Your task to perform on an android device: add a contact in the contacts app Image 0: 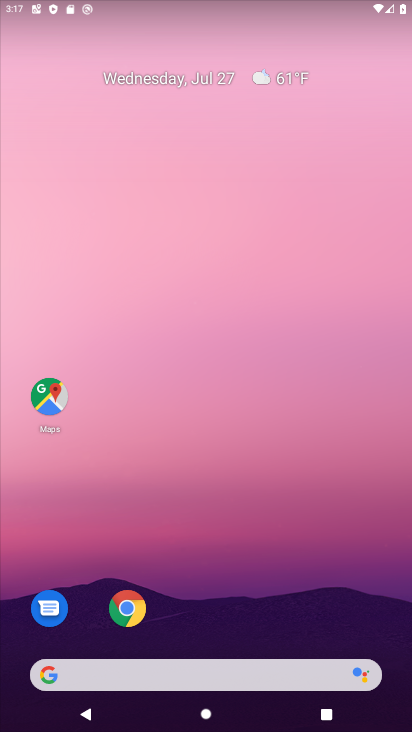
Step 0: drag from (261, 583) to (209, 52)
Your task to perform on an android device: add a contact in the contacts app Image 1: 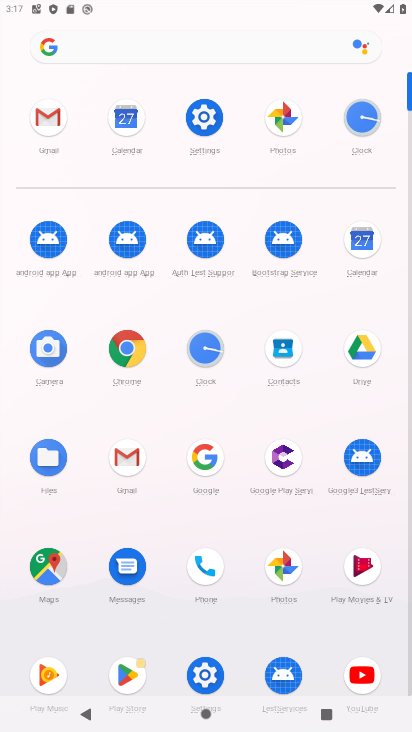
Step 1: click (276, 354)
Your task to perform on an android device: add a contact in the contacts app Image 2: 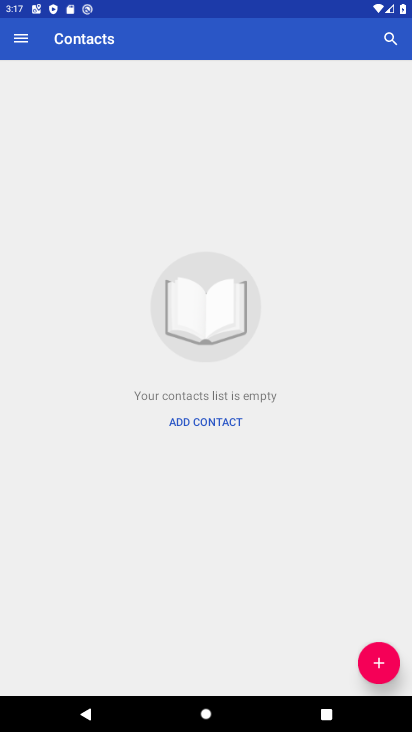
Step 2: click (371, 665)
Your task to perform on an android device: add a contact in the contacts app Image 3: 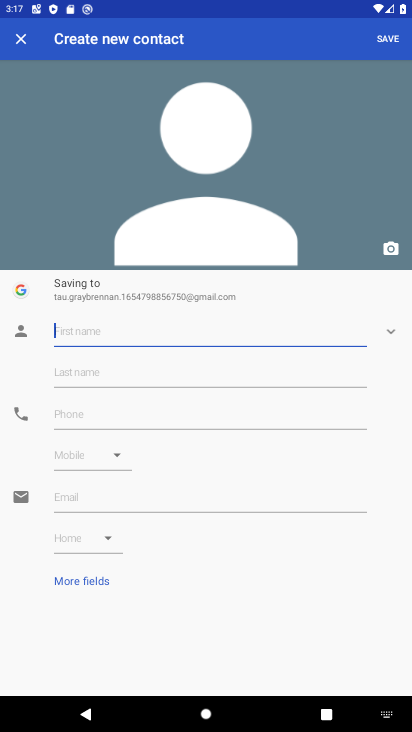
Step 3: type "bnm"
Your task to perform on an android device: add a contact in the contacts app Image 4: 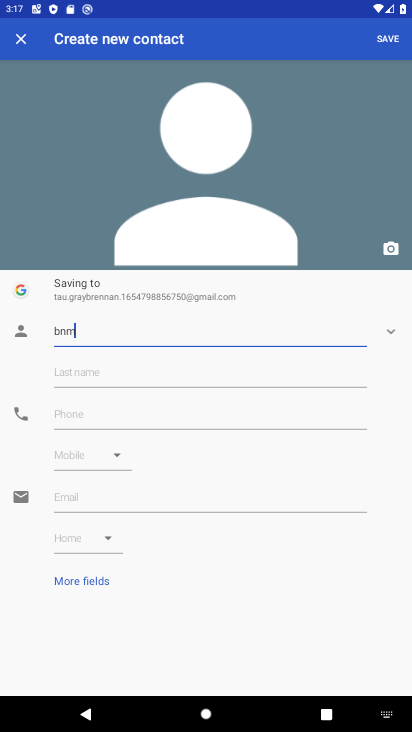
Step 4: click (276, 401)
Your task to perform on an android device: add a contact in the contacts app Image 5: 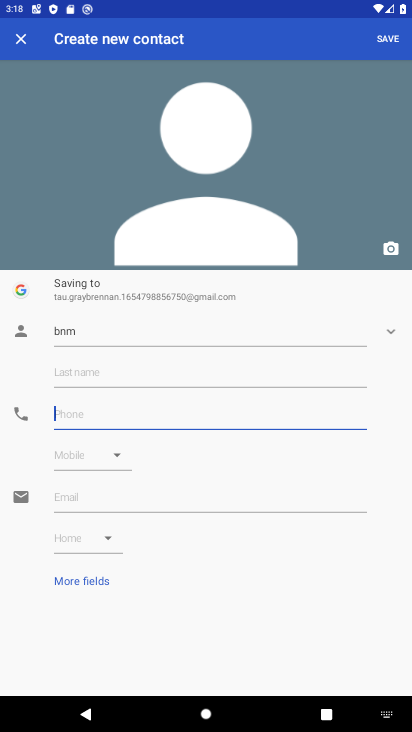
Step 5: type "6789009877"
Your task to perform on an android device: add a contact in the contacts app Image 6: 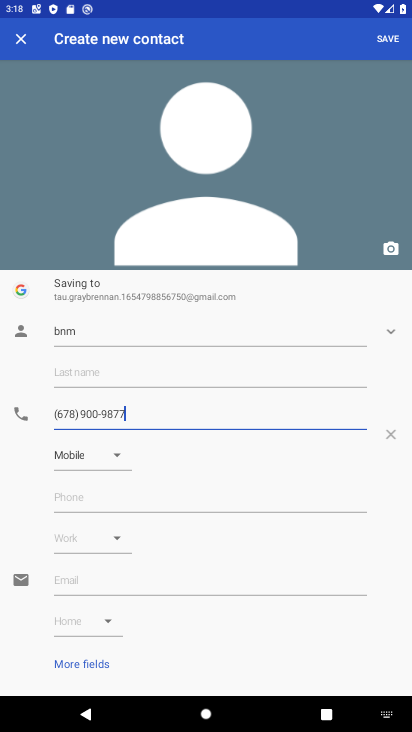
Step 6: click (380, 39)
Your task to perform on an android device: add a contact in the contacts app Image 7: 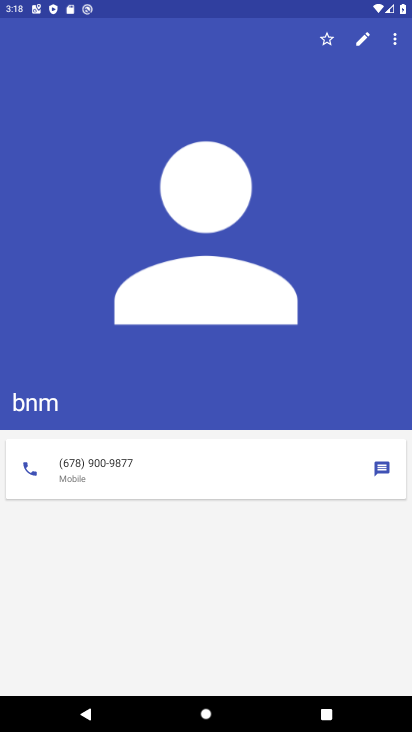
Step 7: task complete